Your task to perform on an android device: turn on bluetooth scan Image 0: 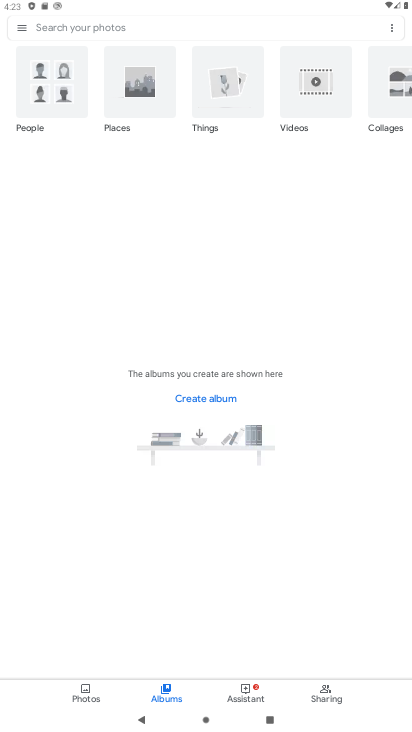
Step 0: press home button
Your task to perform on an android device: turn on bluetooth scan Image 1: 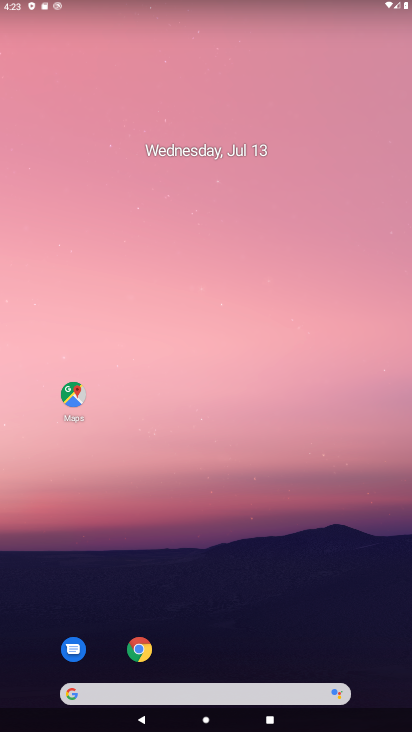
Step 1: drag from (227, 539) to (291, 0)
Your task to perform on an android device: turn on bluetooth scan Image 2: 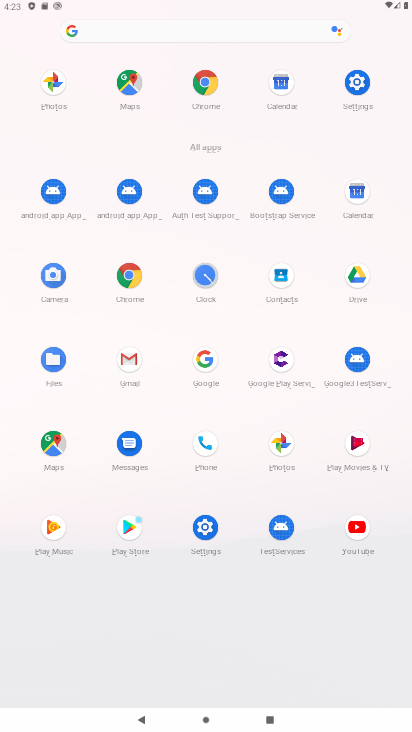
Step 2: click (366, 83)
Your task to perform on an android device: turn on bluetooth scan Image 3: 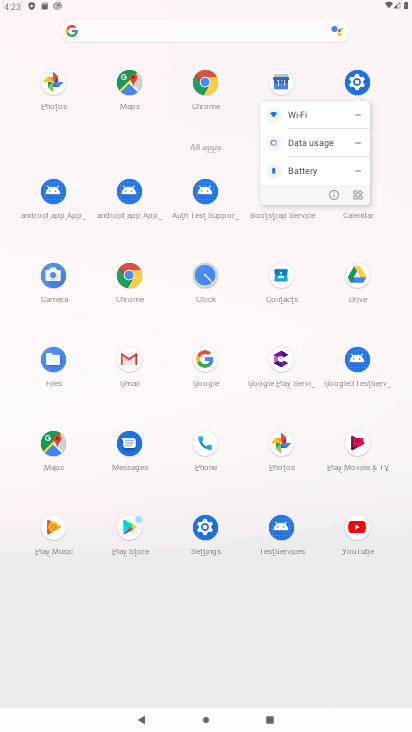
Step 3: click (353, 86)
Your task to perform on an android device: turn on bluetooth scan Image 4: 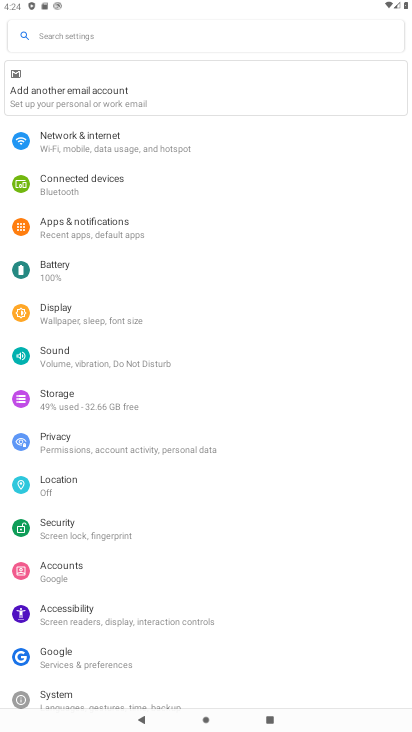
Step 4: click (81, 494)
Your task to perform on an android device: turn on bluetooth scan Image 5: 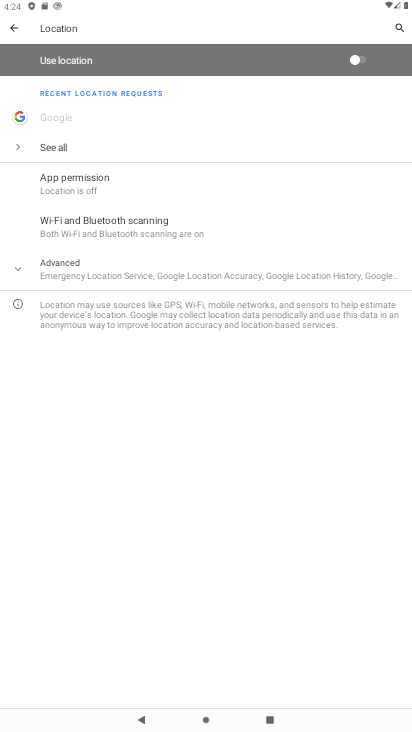
Step 5: click (76, 232)
Your task to perform on an android device: turn on bluetooth scan Image 6: 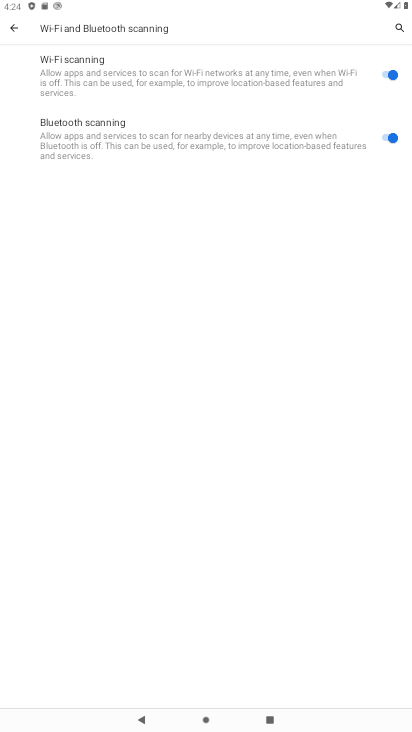
Step 6: task complete